Your task to perform on an android device: find snoozed emails in the gmail app Image 0: 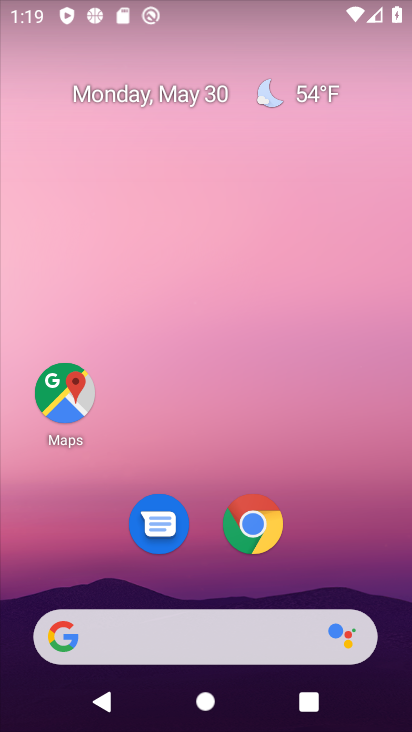
Step 0: drag from (219, 463) to (226, 0)
Your task to perform on an android device: find snoozed emails in the gmail app Image 1: 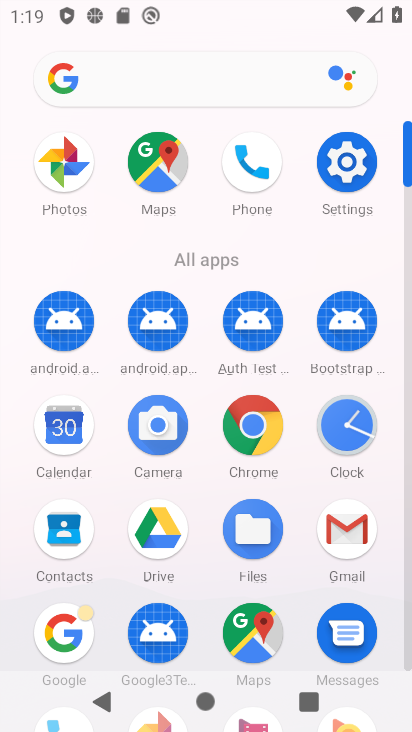
Step 1: click (342, 530)
Your task to perform on an android device: find snoozed emails in the gmail app Image 2: 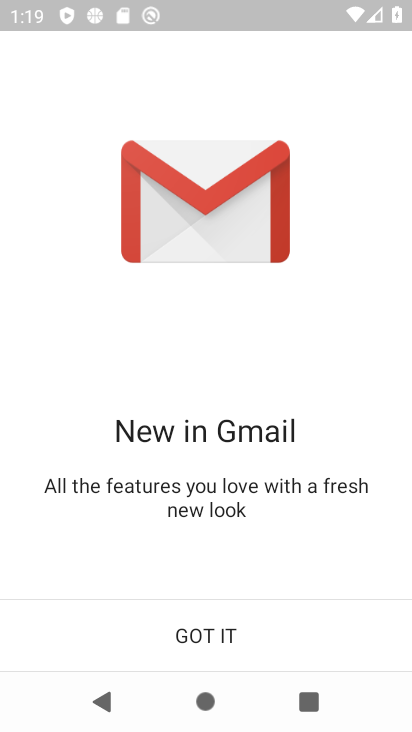
Step 2: click (329, 623)
Your task to perform on an android device: find snoozed emails in the gmail app Image 3: 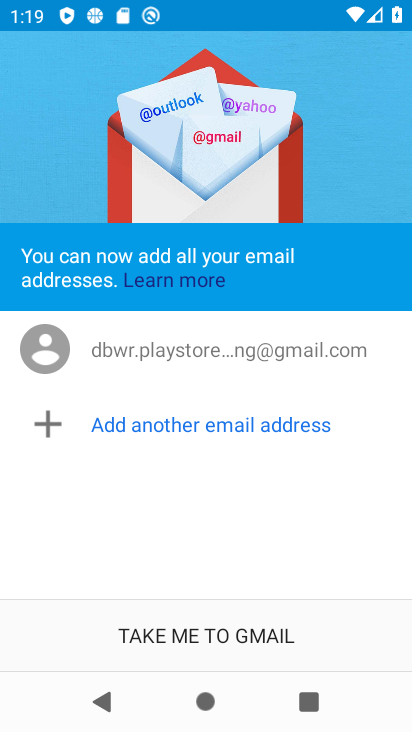
Step 3: click (331, 618)
Your task to perform on an android device: find snoozed emails in the gmail app Image 4: 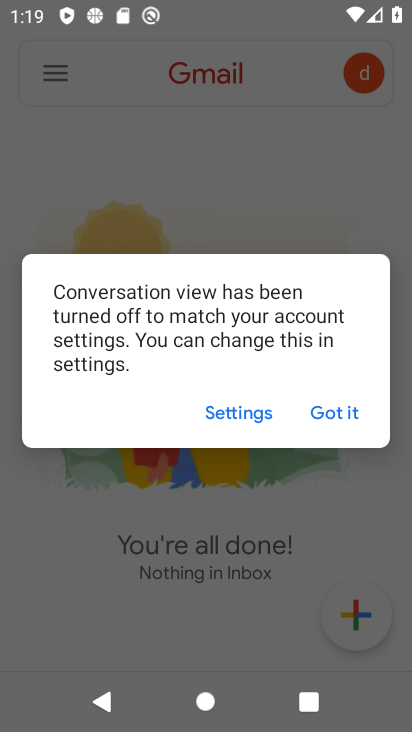
Step 4: click (335, 410)
Your task to perform on an android device: find snoozed emails in the gmail app Image 5: 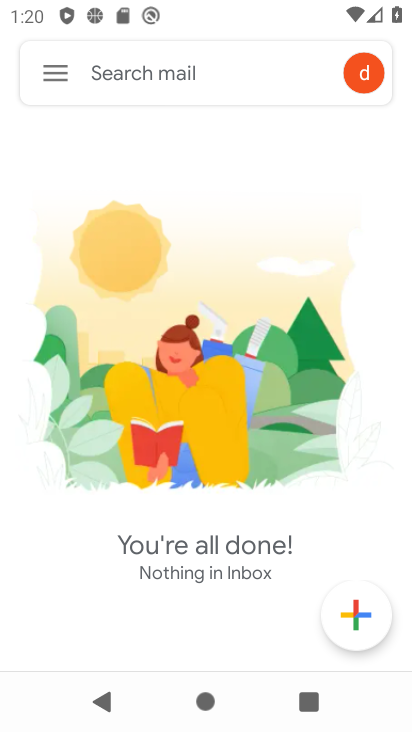
Step 5: click (58, 67)
Your task to perform on an android device: find snoozed emails in the gmail app Image 6: 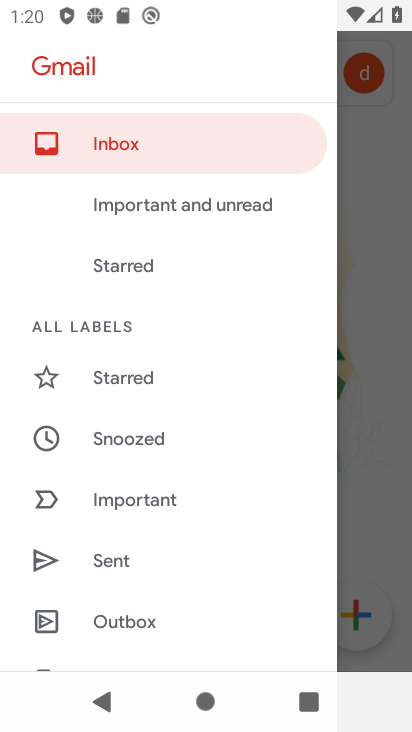
Step 6: click (135, 429)
Your task to perform on an android device: find snoozed emails in the gmail app Image 7: 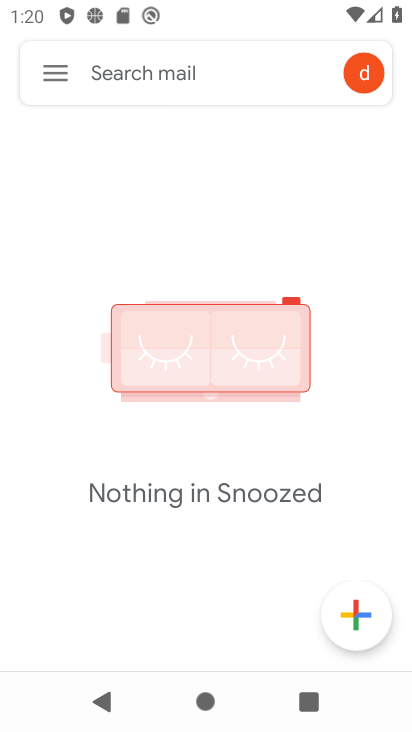
Step 7: task complete